Your task to perform on an android device: open app "LiveIn - Share Your Moment" Image 0: 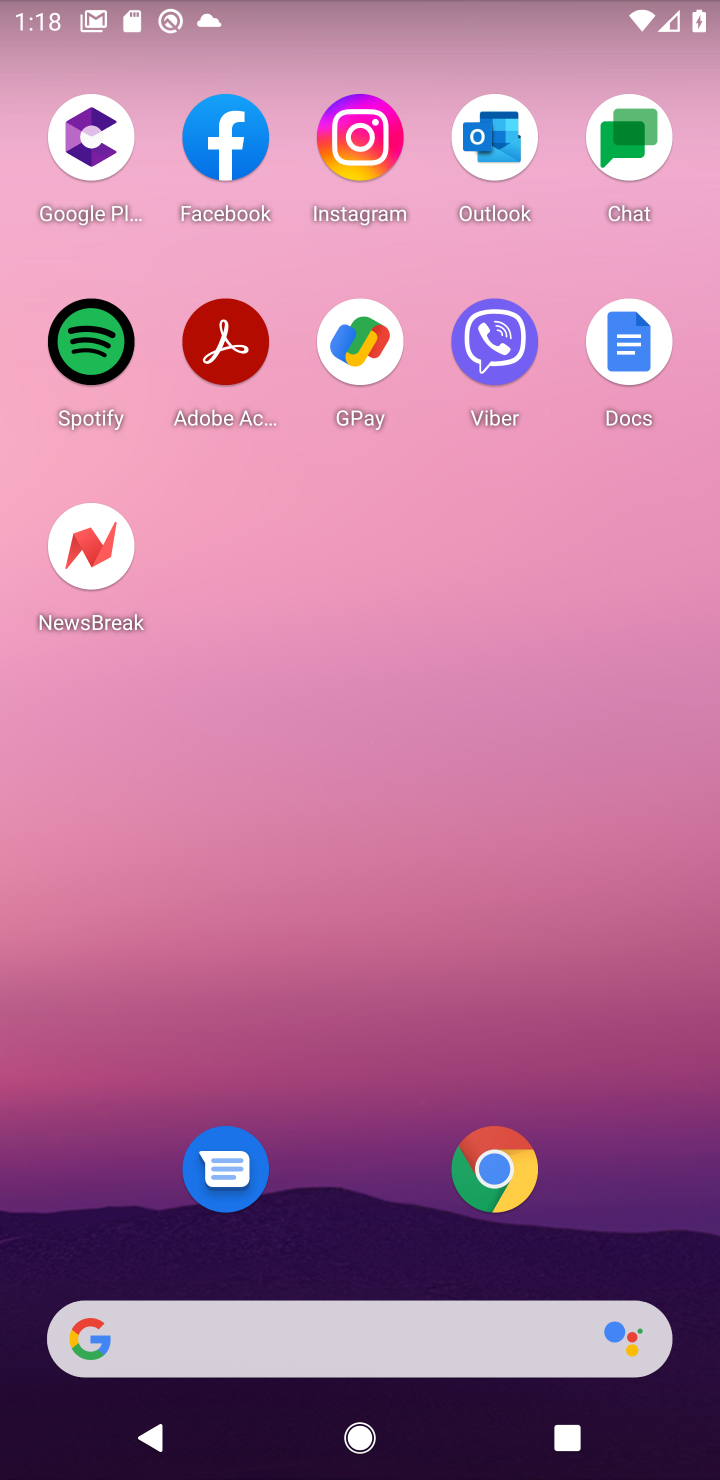
Step 0: drag from (306, 533) to (456, 69)
Your task to perform on an android device: open app "LiveIn - Share Your Moment" Image 1: 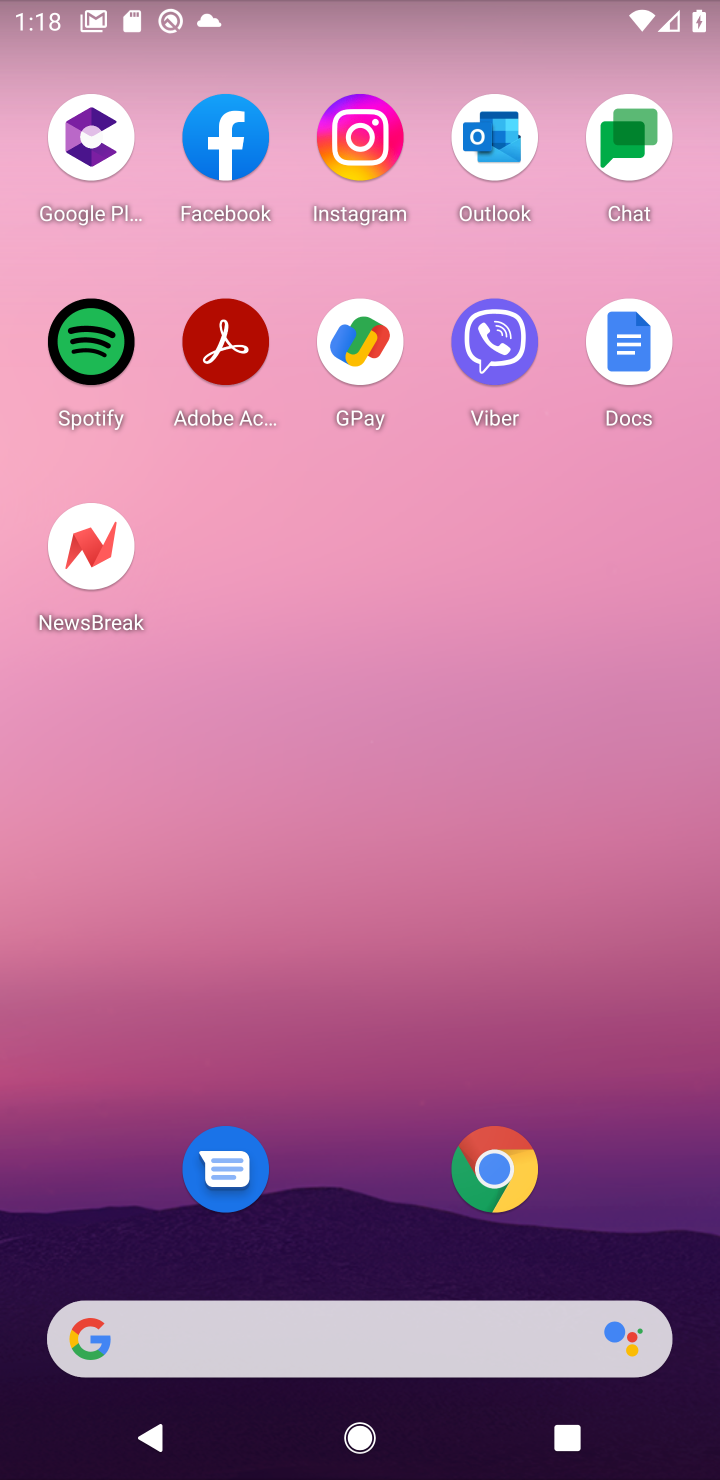
Step 1: click (452, 14)
Your task to perform on an android device: open app "LiveIn - Share Your Moment" Image 2: 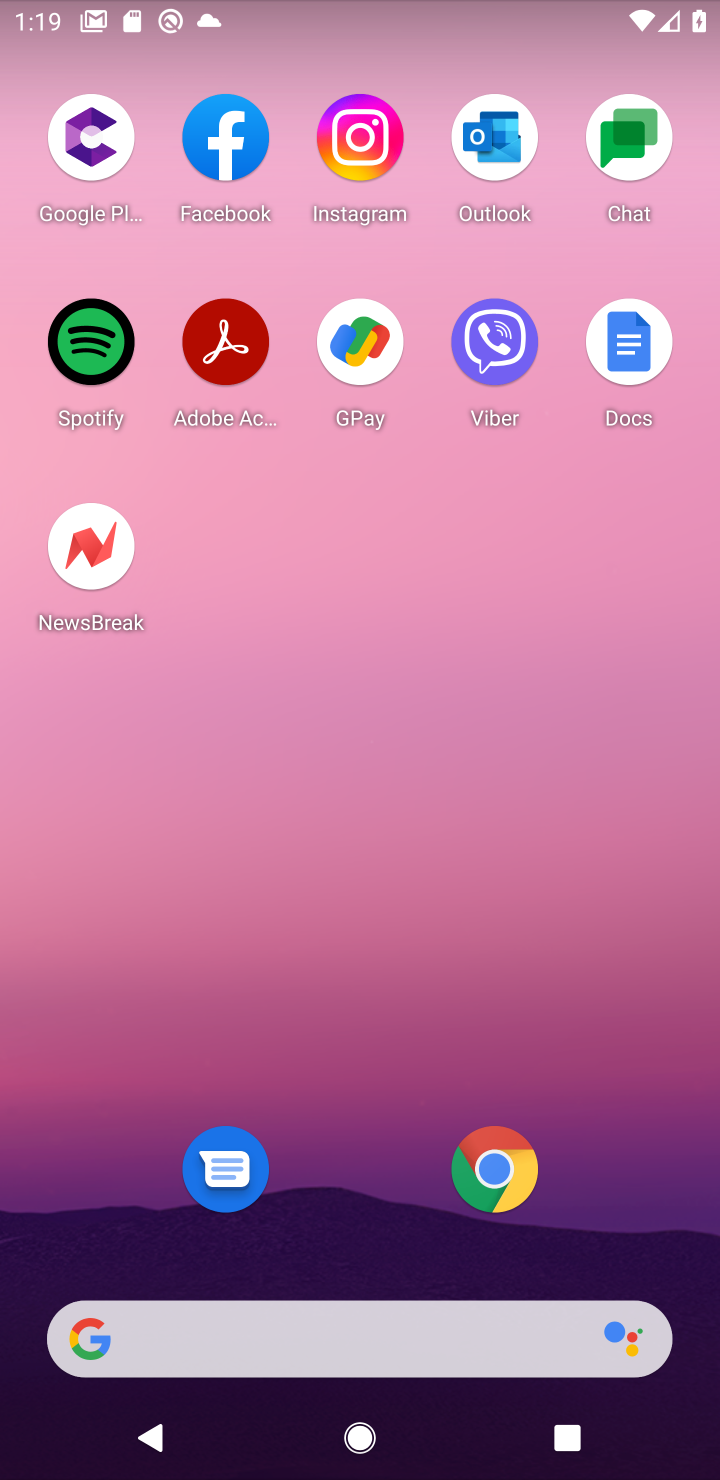
Step 2: drag from (351, 980) to (380, 170)
Your task to perform on an android device: open app "LiveIn - Share Your Moment" Image 3: 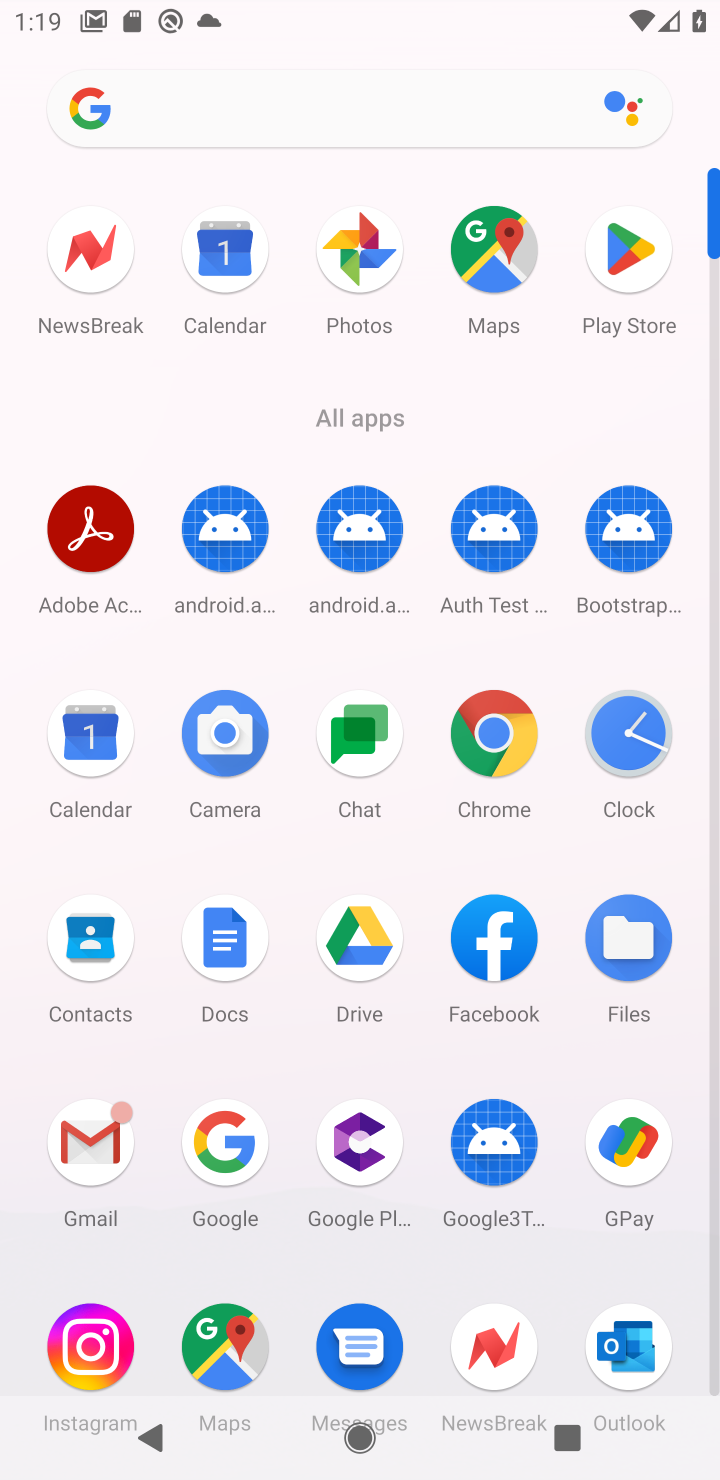
Step 3: click (641, 295)
Your task to perform on an android device: open app "LiveIn - Share Your Moment" Image 4: 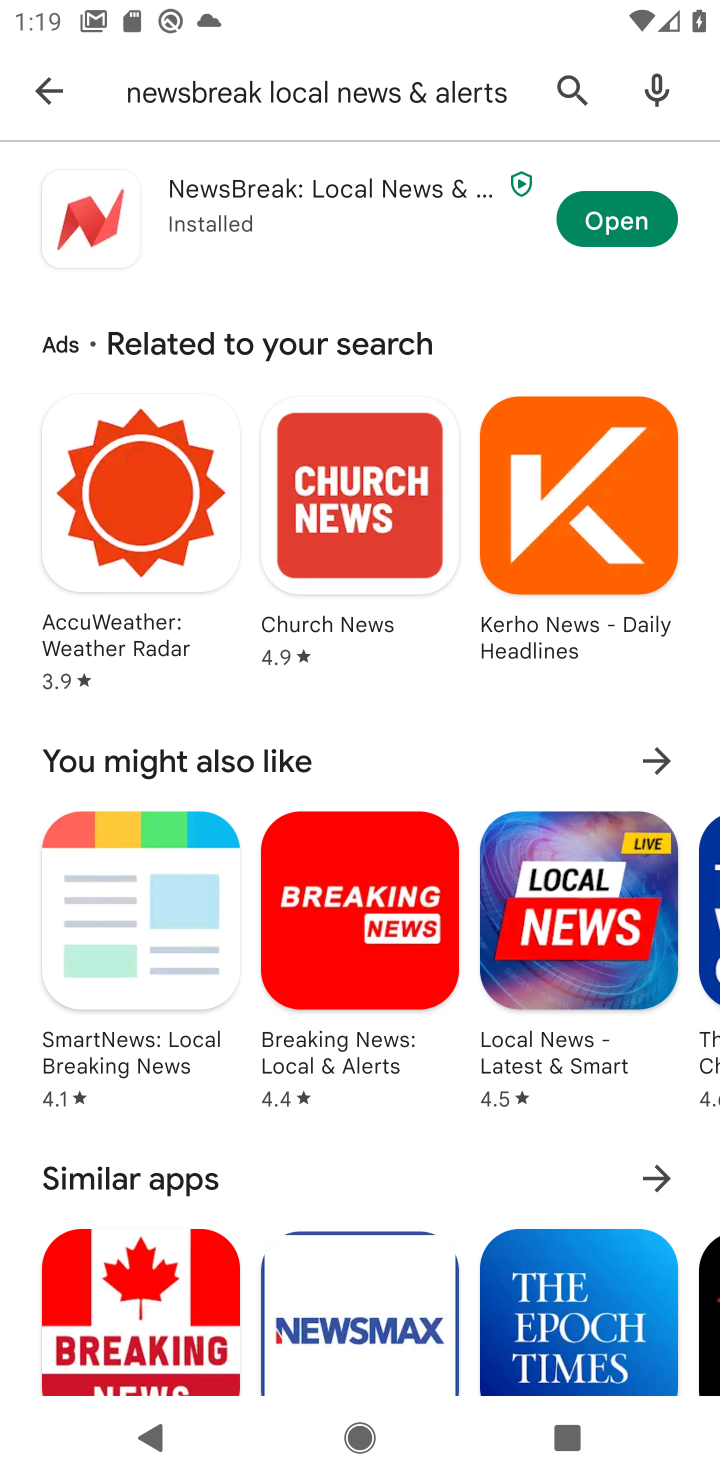
Step 4: click (122, 184)
Your task to perform on an android device: open app "LiveIn - Share Your Moment" Image 5: 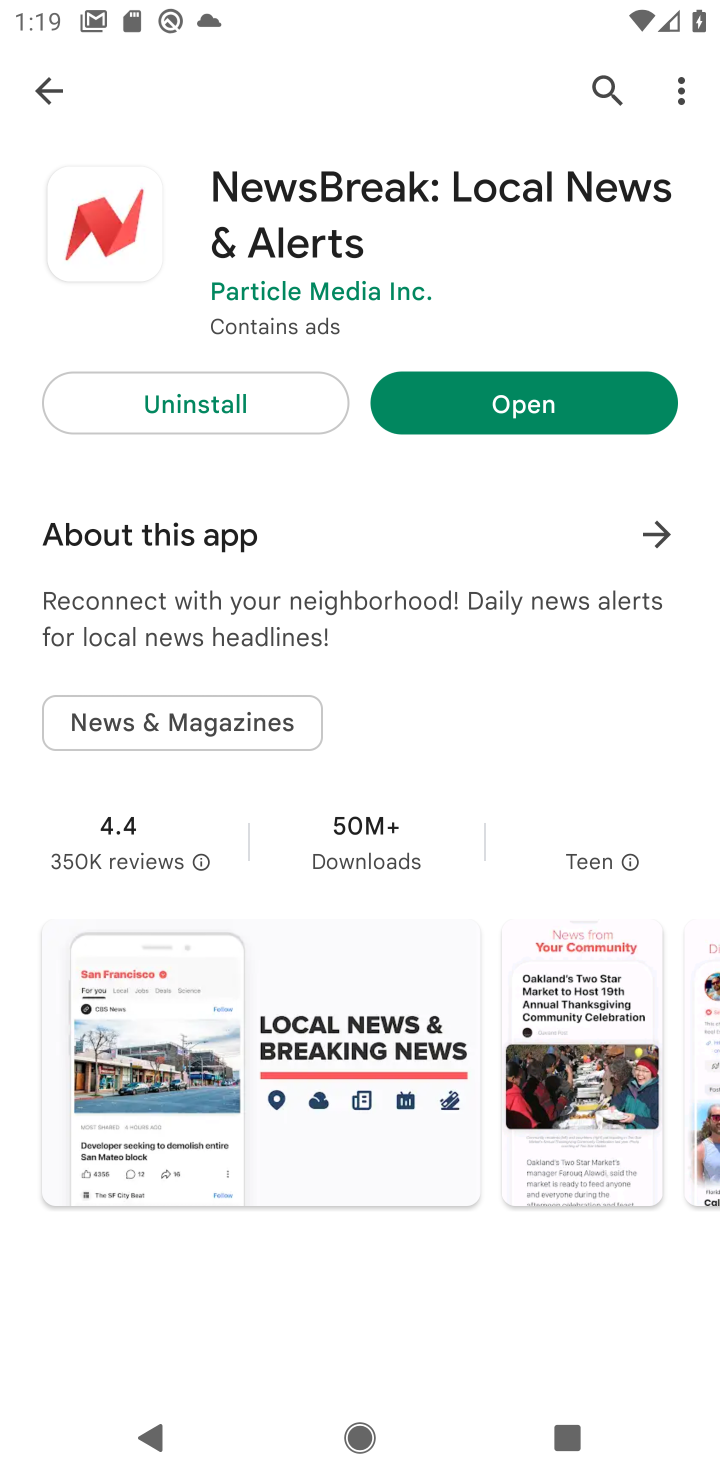
Step 5: click (30, 98)
Your task to perform on an android device: open app "LiveIn - Share Your Moment" Image 6: 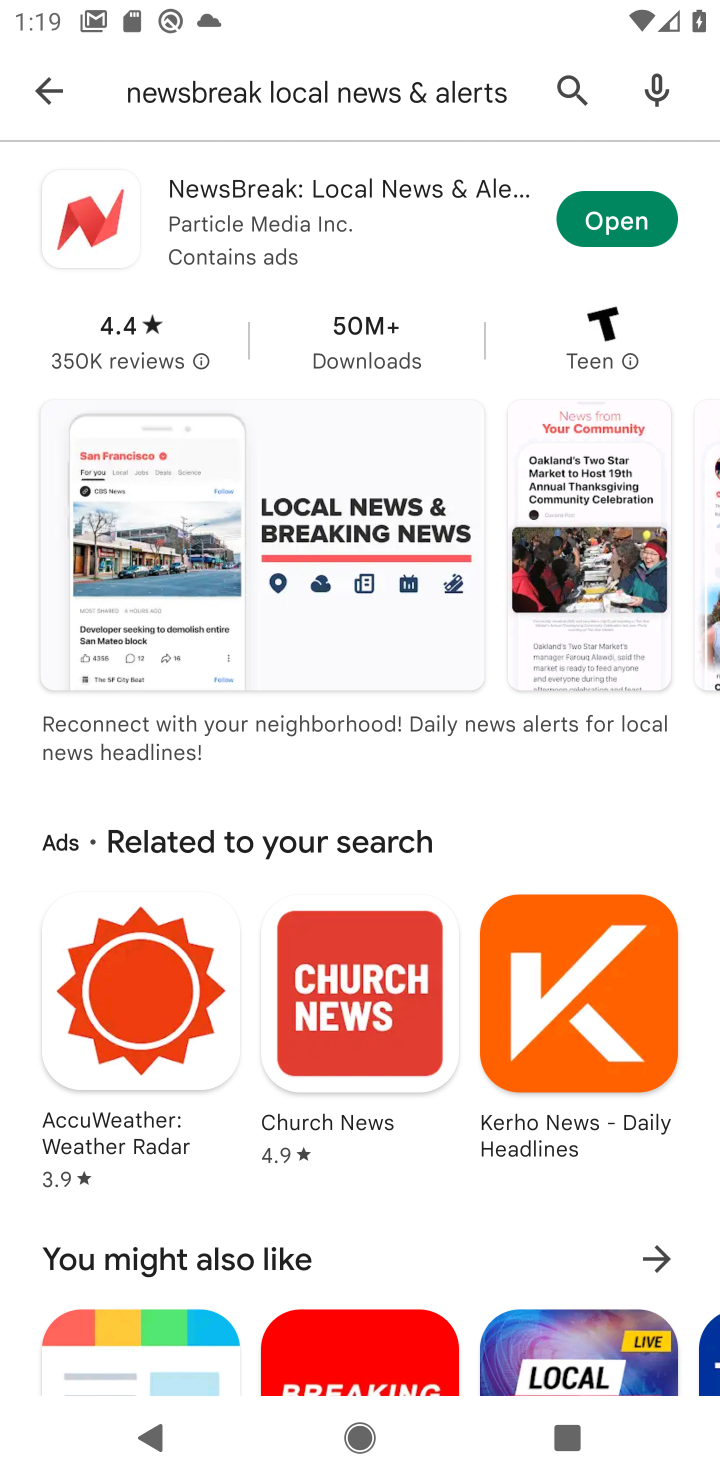
Step 6: click (30, 98)
Your task to perform on an android device: open app "LiveIn - Share Your Moment" Image 7: 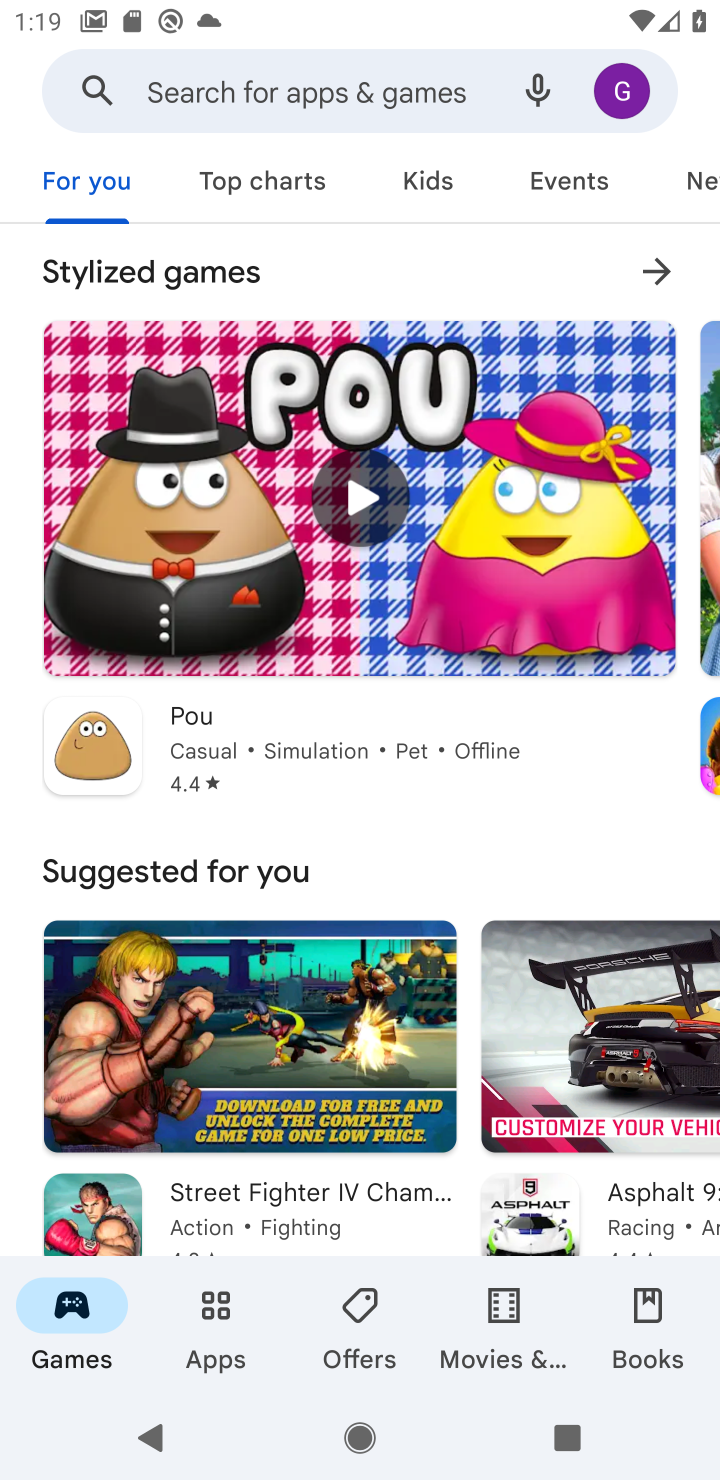
Step 7: click (302, 92)
Your task to perform on an android device: open app "LiveIn - Share Your Moment" Image 8: 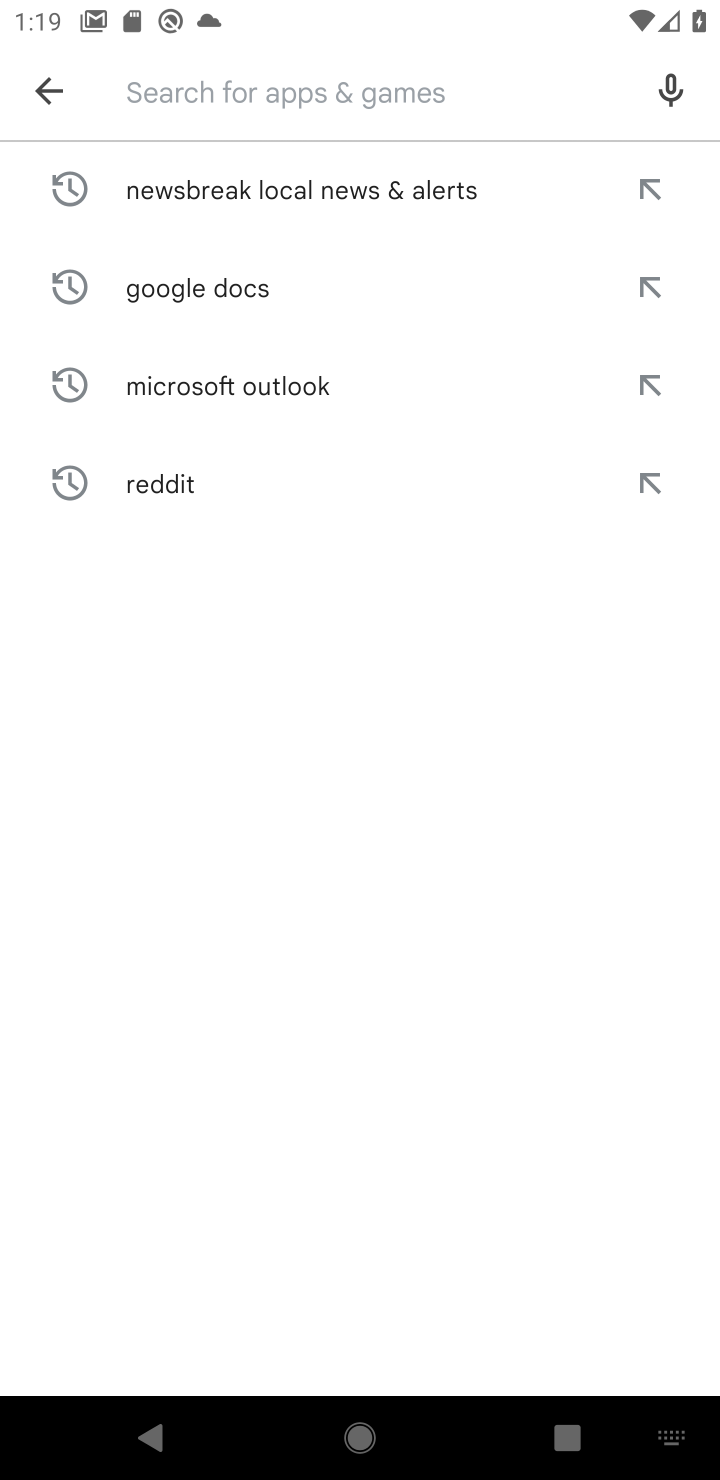
Step 8: type "LiveIn - Share Your Moment"
Your task to perform on an android device: open app "LiveIn - Share Your Moment" Image 9: 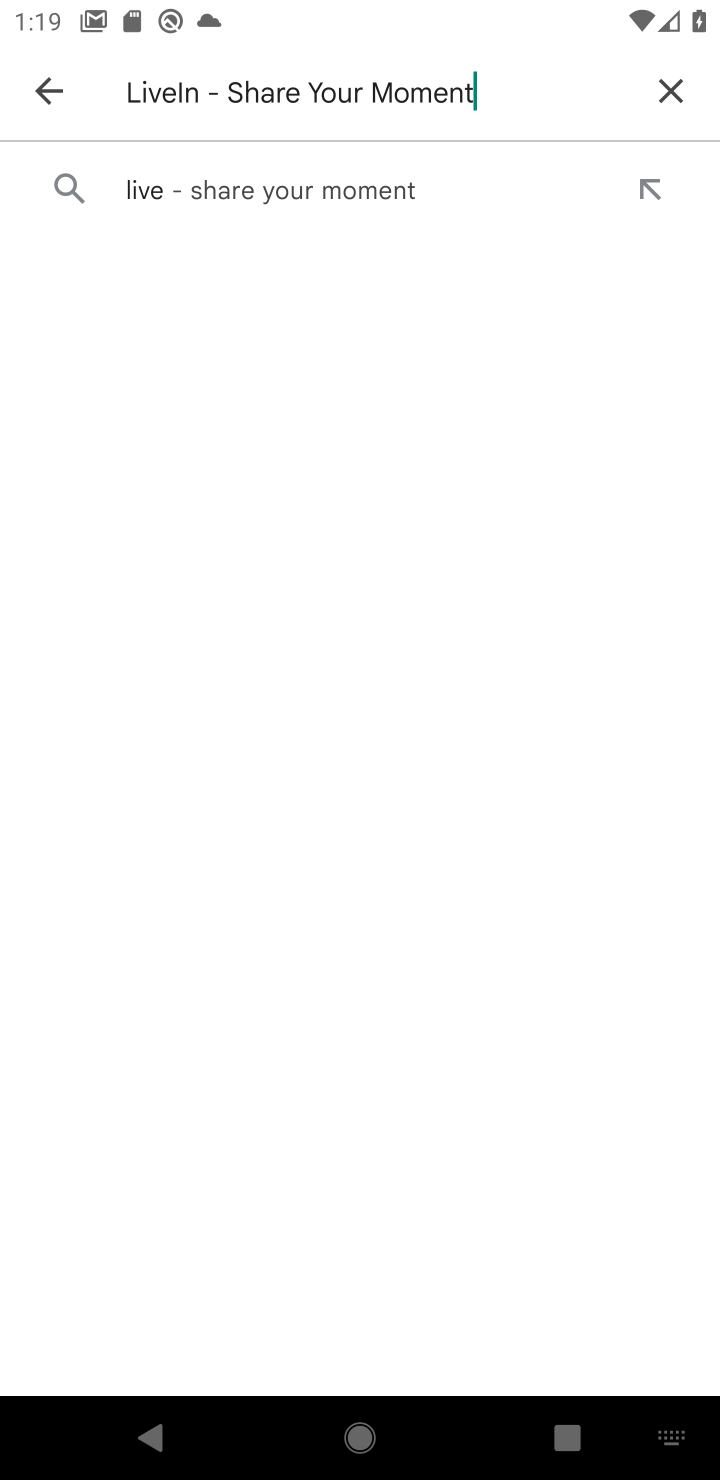
Step 9: click (353, 182)
Your task to perform on an android device: open app "LiveIn - Share Your Moment" Image 10: 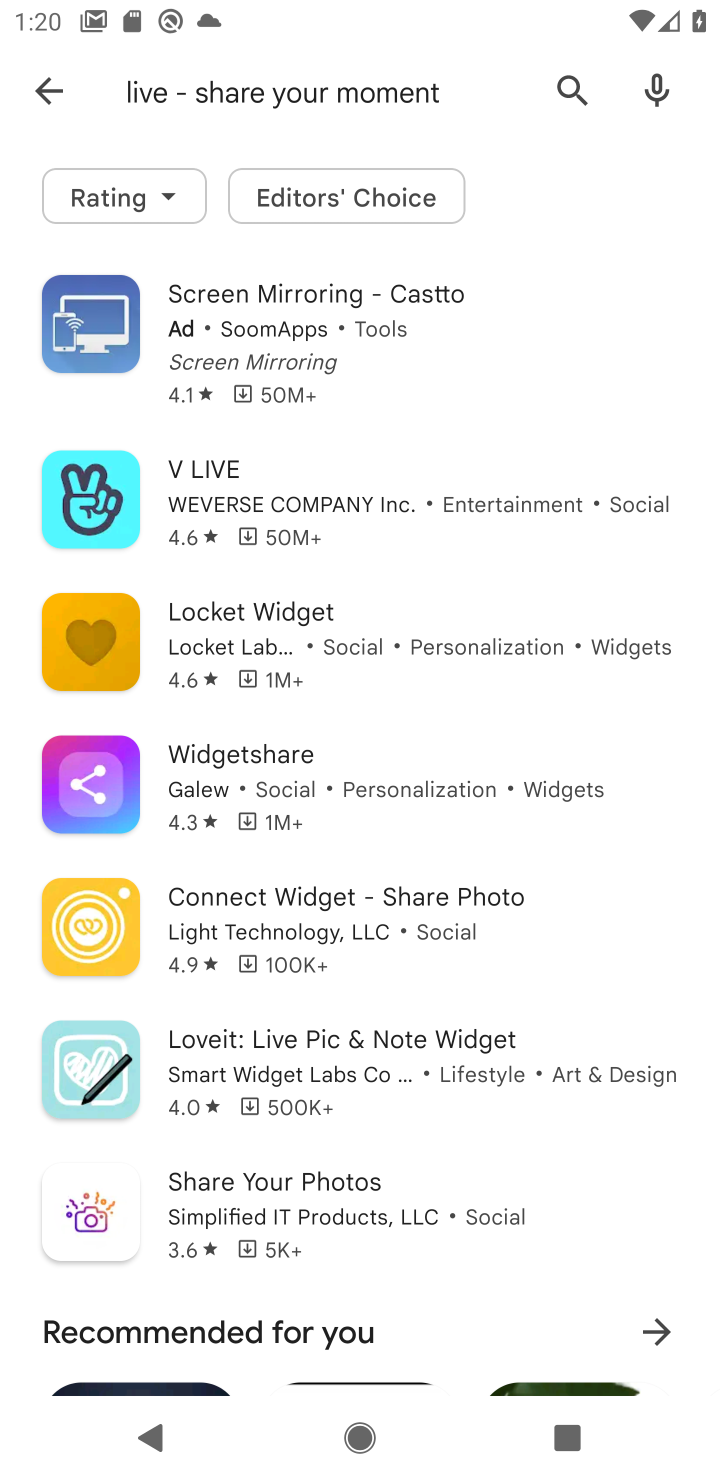
Step 10: task complete